Your task to perform on an android device: open chrome privacy settings Image 0: 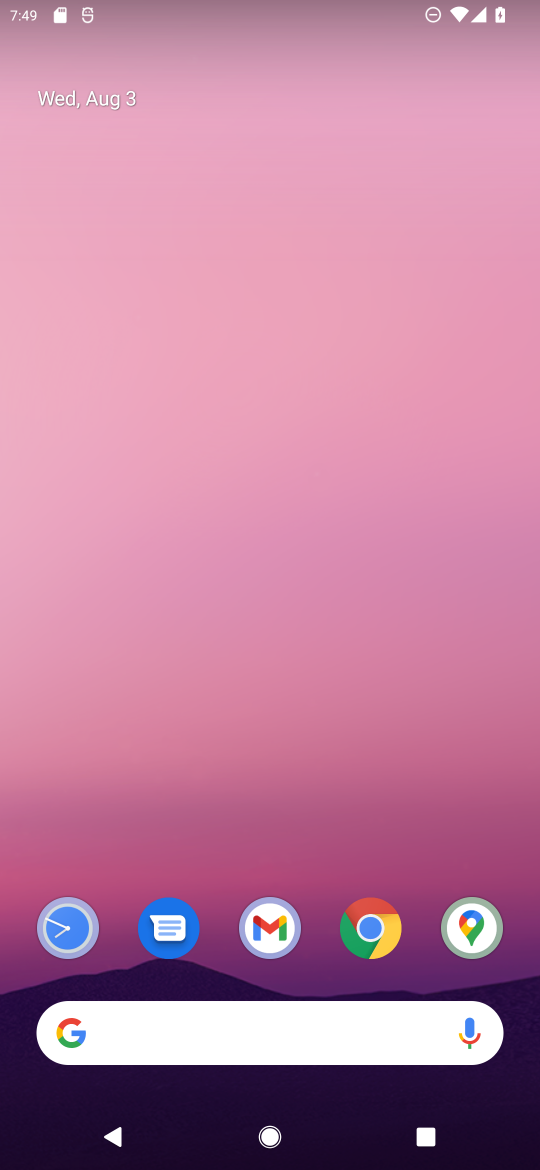
Step 0: click (359, 922)
Your task to perform on an android device: open chrome privacy settings Image 1: 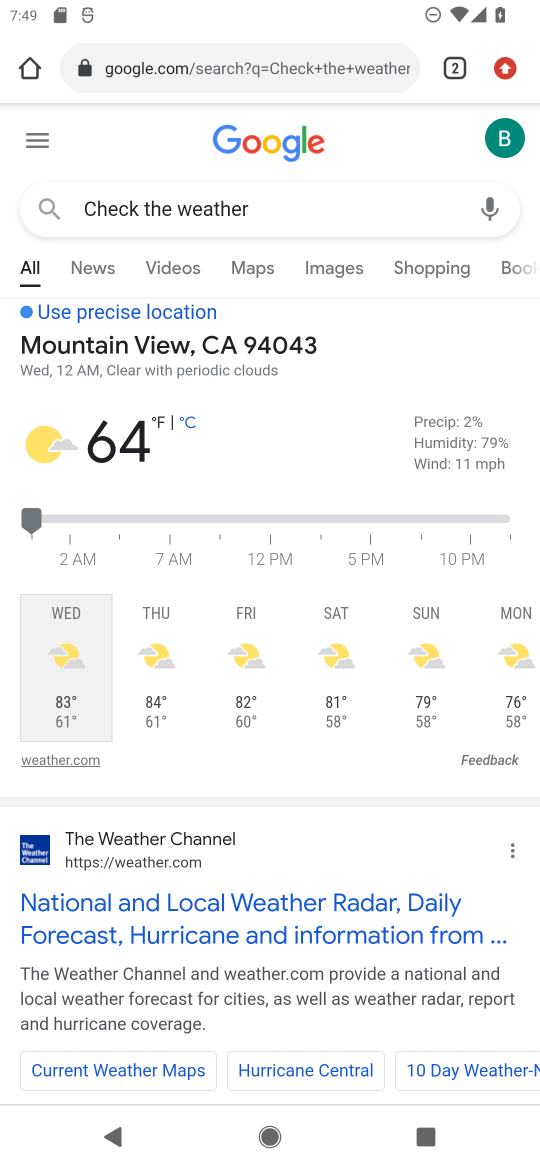
Step 1: click (505, 72)
Your task to perform on an android device: open chrome privacy settings Image 2: 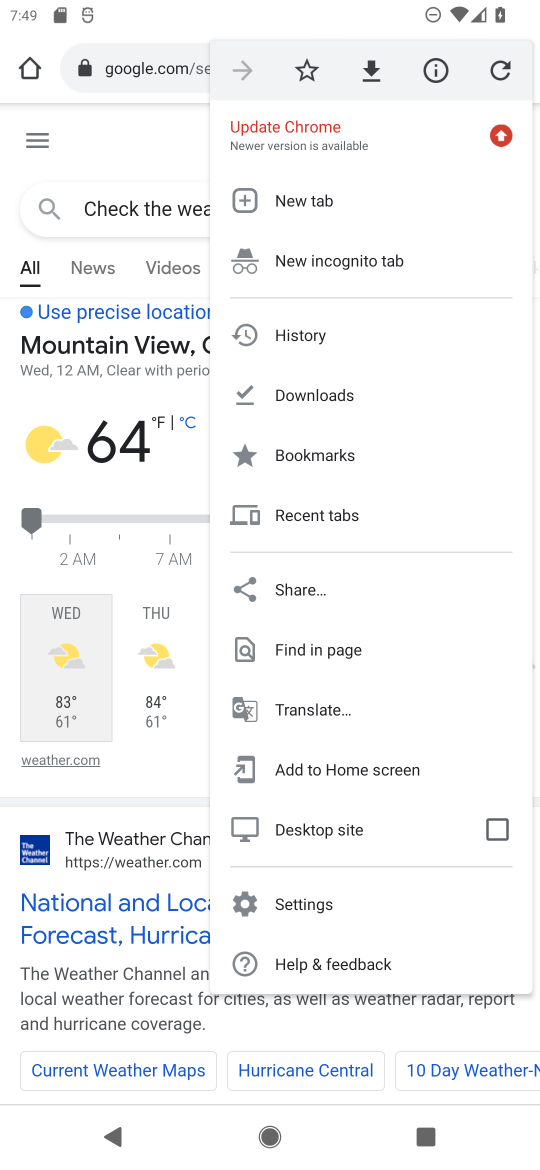
Step 2: click (297, 912)
Your task to perform on an android device: open chrome privacy settings Image 3: 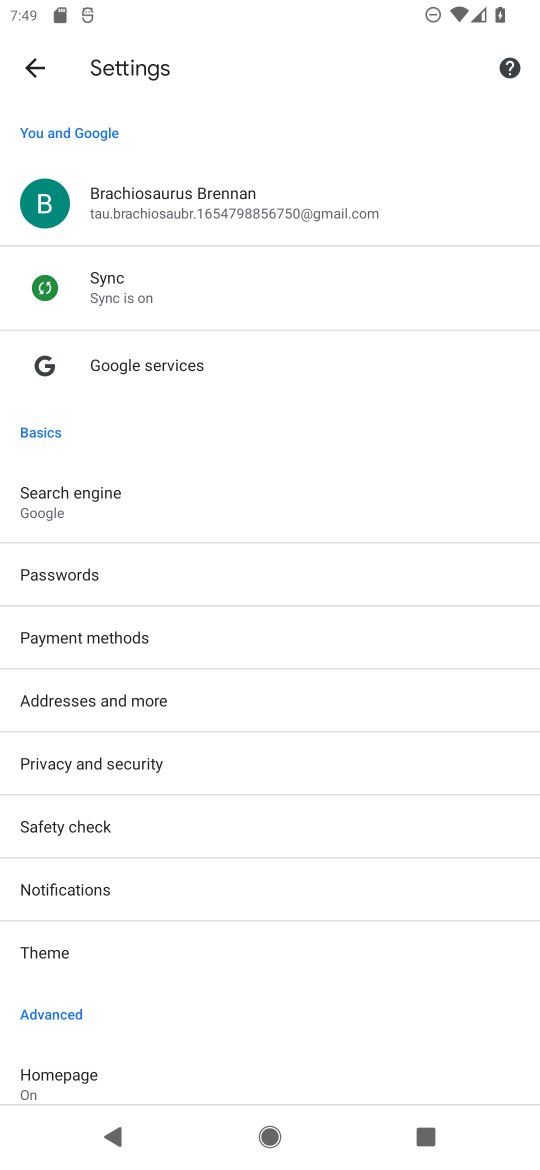
Step 3: click (276, 769)
Your task to perform on an android device: open chrome privacy settings Image 4: 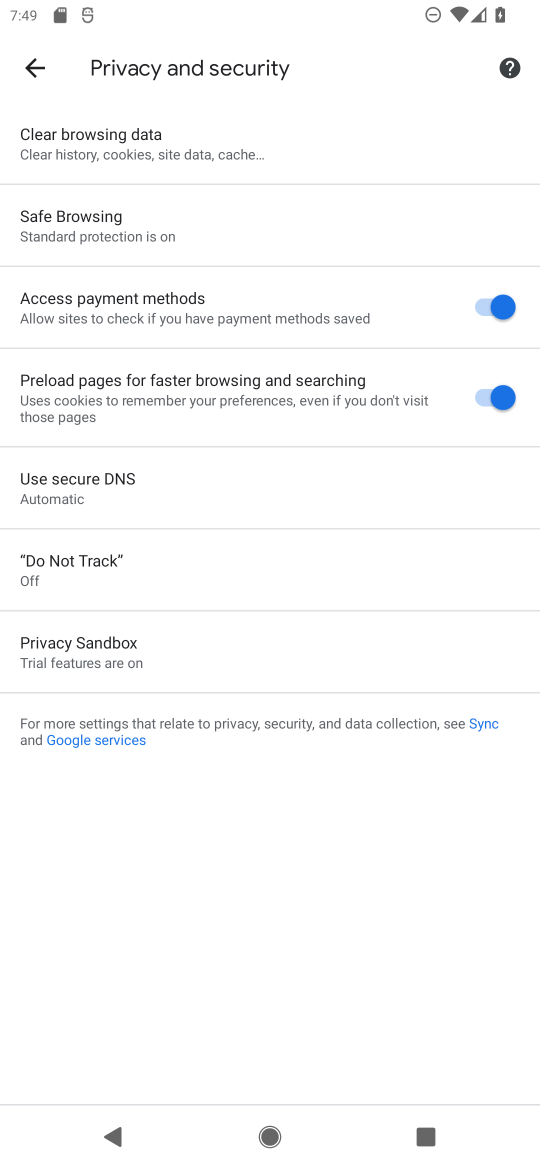
Step 4: task complete